Your task to perform on an android device: Go to eBay Image 0: 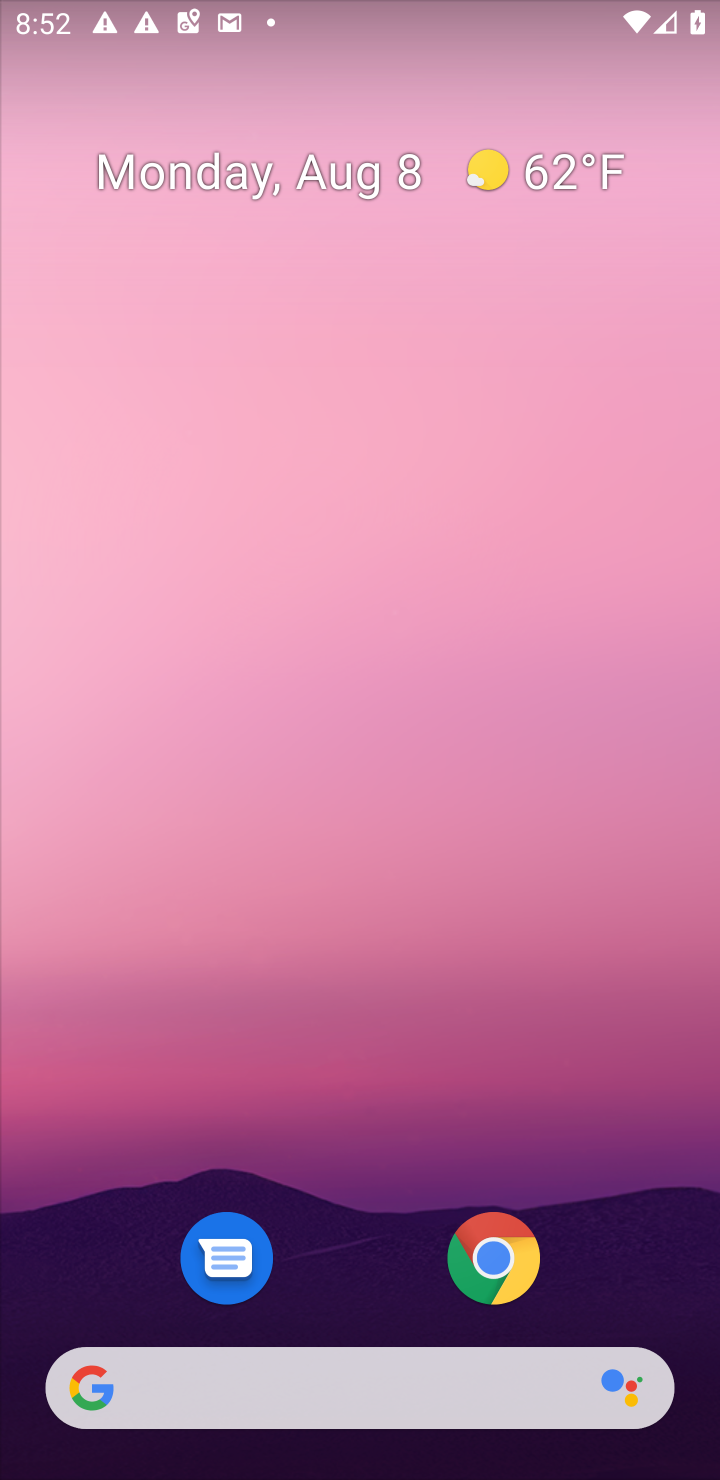
Step 0: click (471, 1227)
Your task to perform on an android device: Go to eBay Image 1: 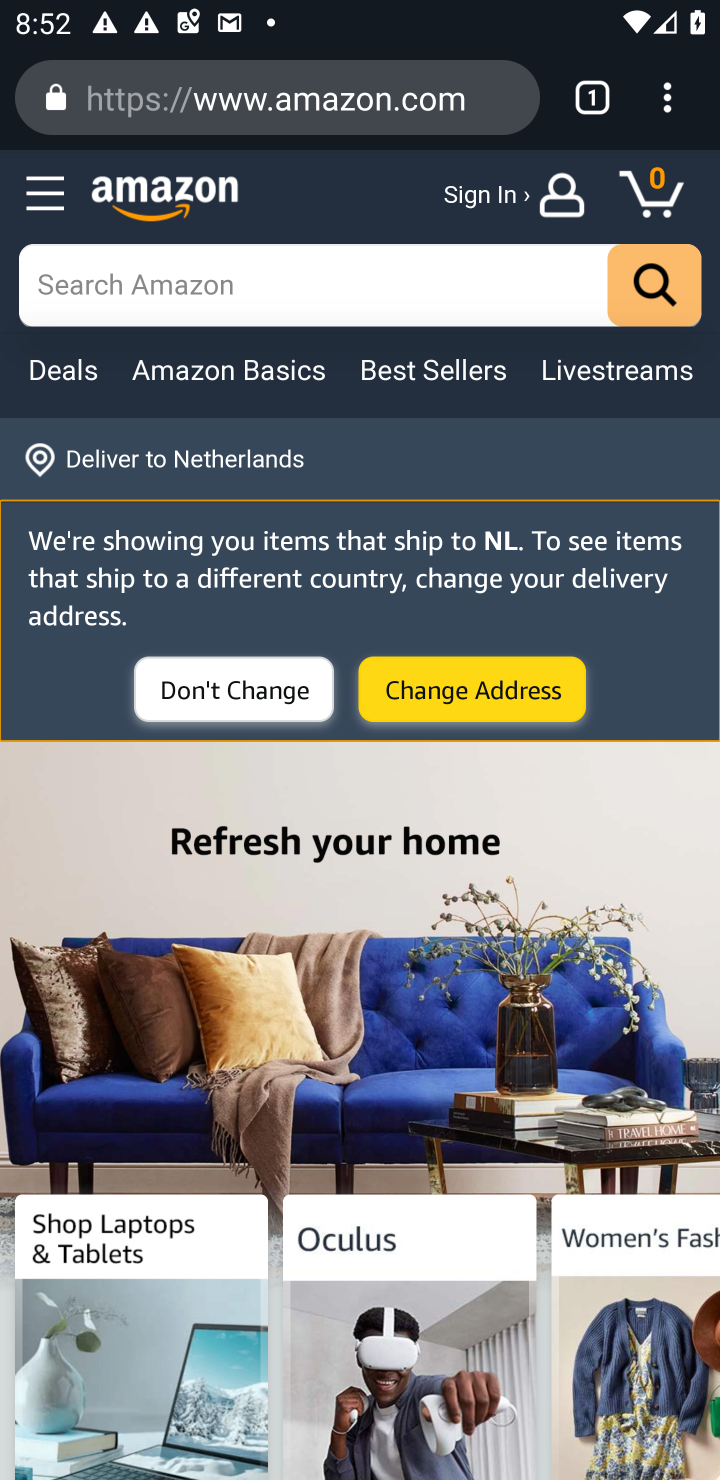
Step 1: click (593, 79)
Your task to perform on an android device: Go to eBay Image 2: 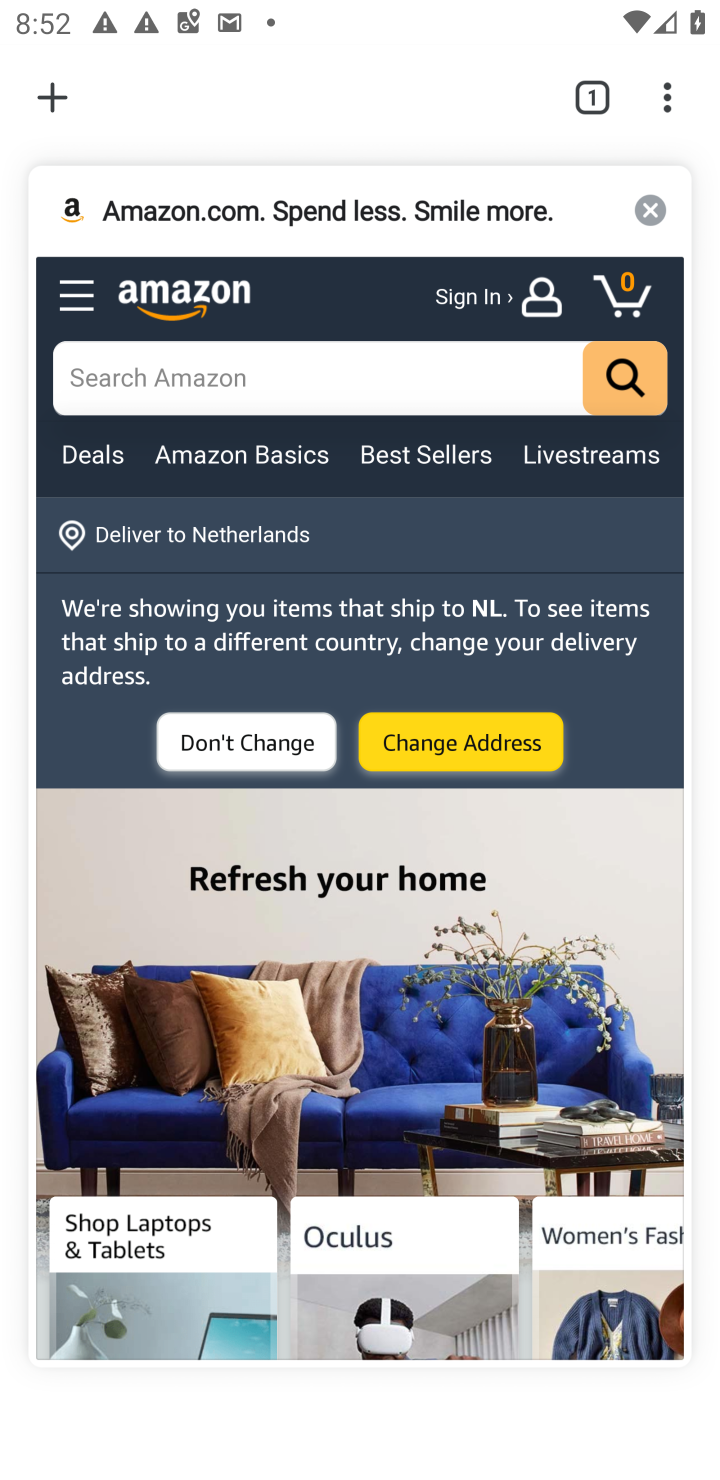
Step 2: click (66, 90)
Your task to perform on an android device: Go to eBay Image 3: 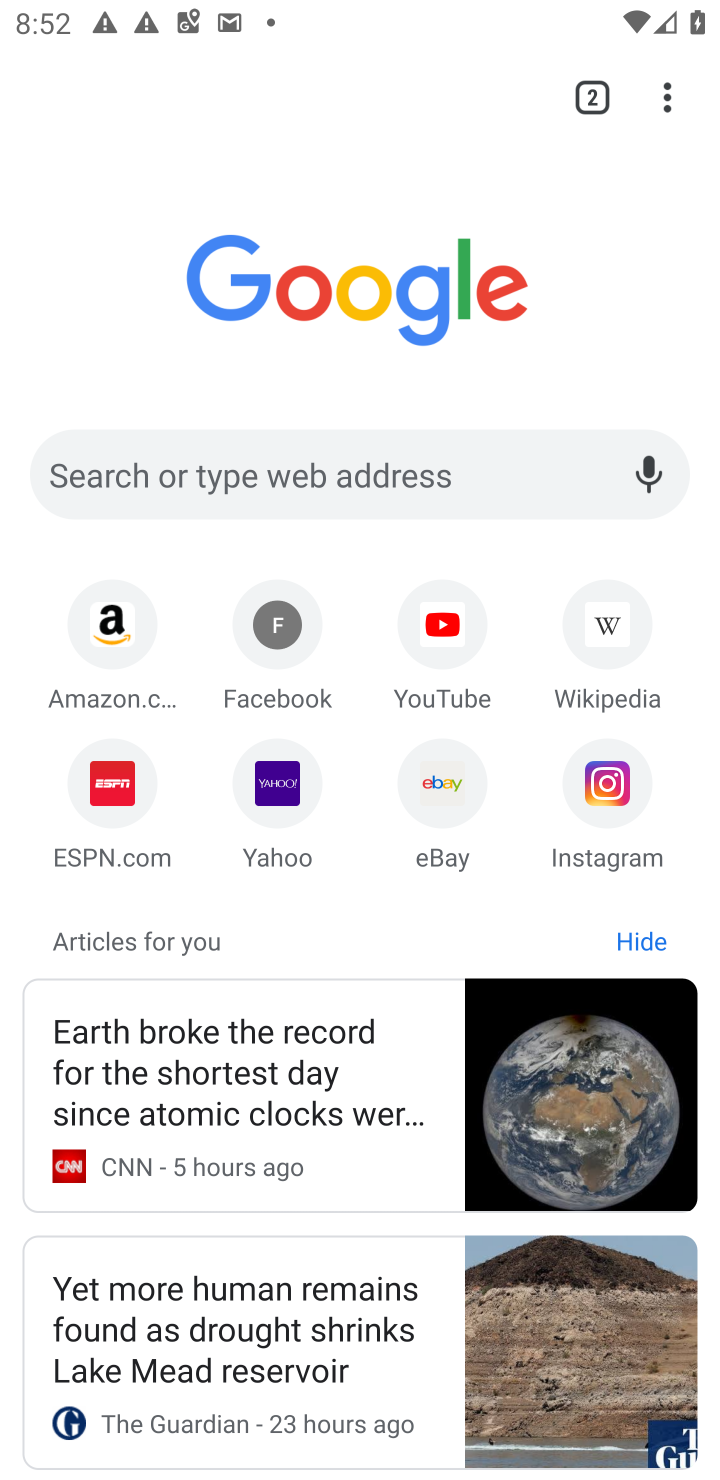
Step 3: click (447, 781)
Your task to perform on an android device: Go to eBay Image 4: 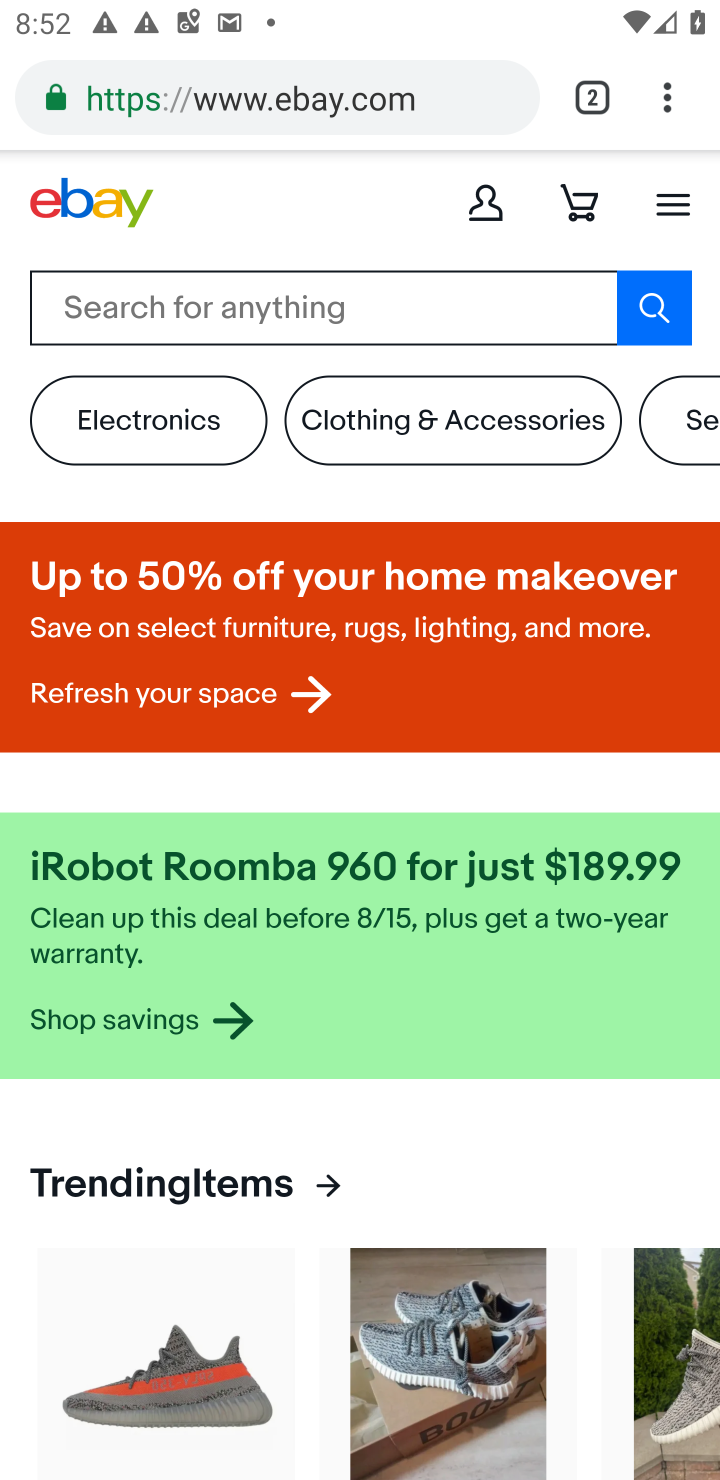
Step 4: task complete